Your task to perform on an android device: change alarm snooze length Image 0: 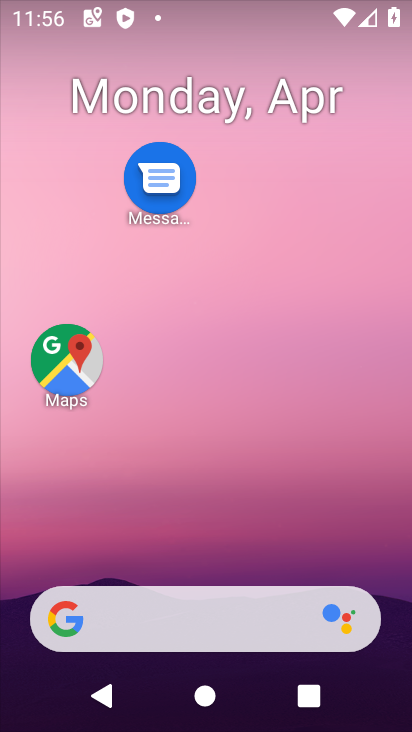
Step 0: drag from (206, 701) to (207, 80)
Your task to perform on an android device: change alarm snooze length Image 1: 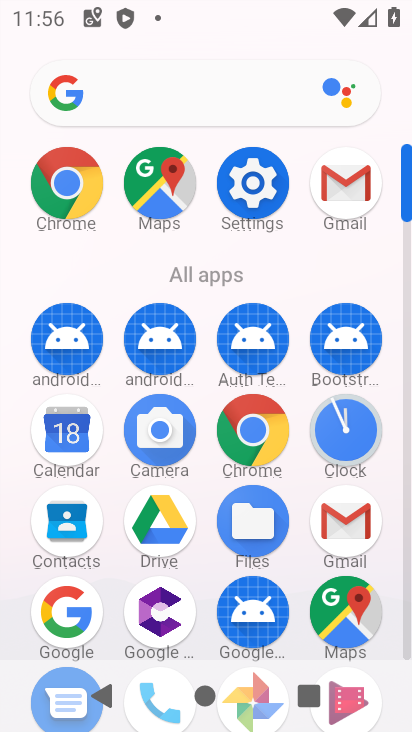
Step 1: click (345, 431)
Your task to perform on an android device: change alarm snooze length Image 2: 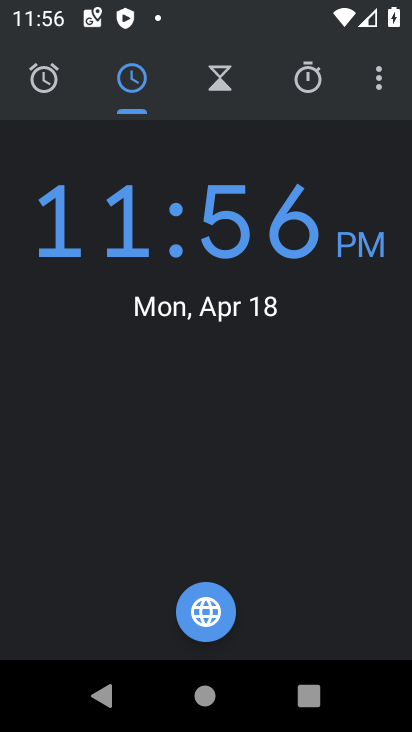
Step 2: click (376, 77)
Your task to perform on an android device: change alarm snooze length Image 3: 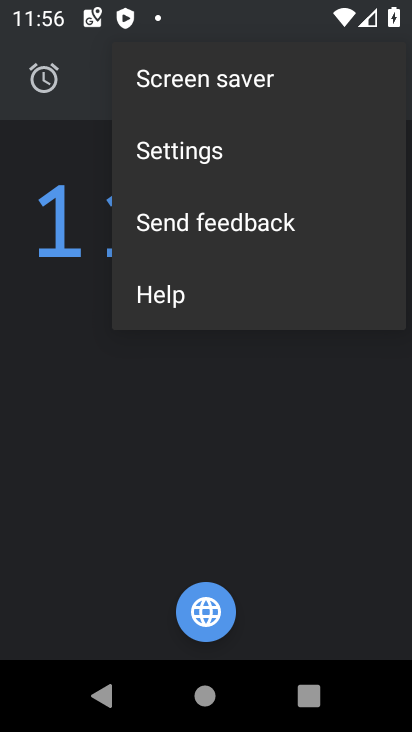
Step 3: click (180, 156)
Your task to perform on an android device: change alarm snooze length Image 4: 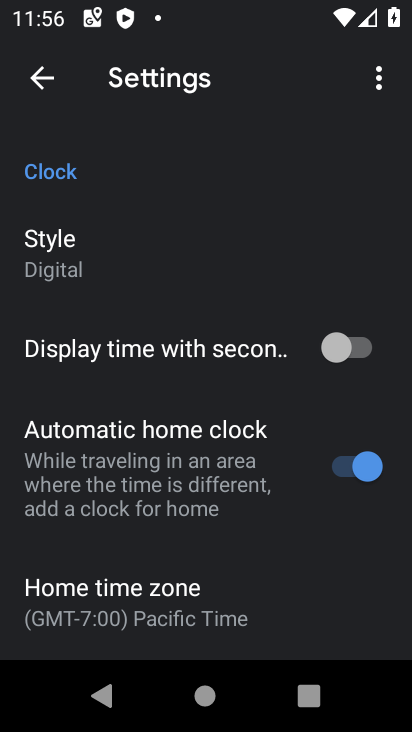
Step 4: drag from (180, 630) to (153, 219)
Your task to perform on an android device: change alarm snooze length Image 5: 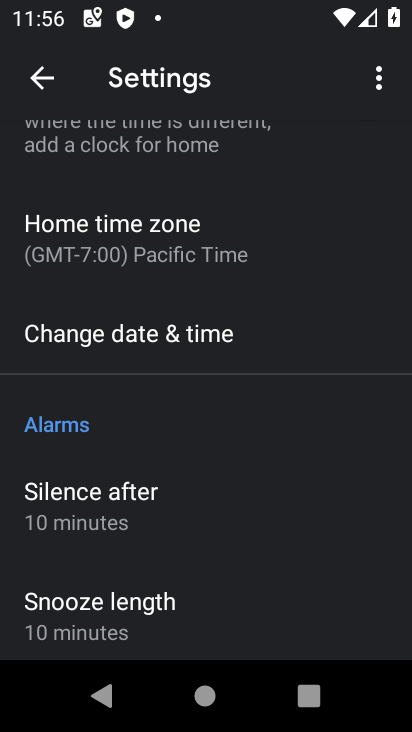
Step 5: click (135, 611)
Your task to perform on an android device: change alarm snooze length Image 6: 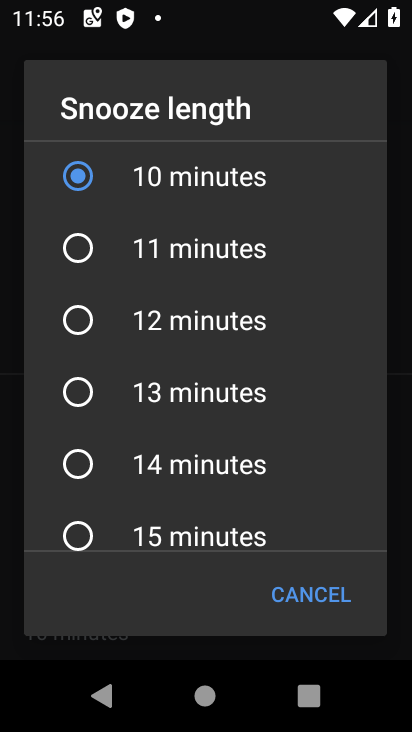
Step 6: click (76, 391)
Your task to perform on an android device: change alarm snooze length Image 7: 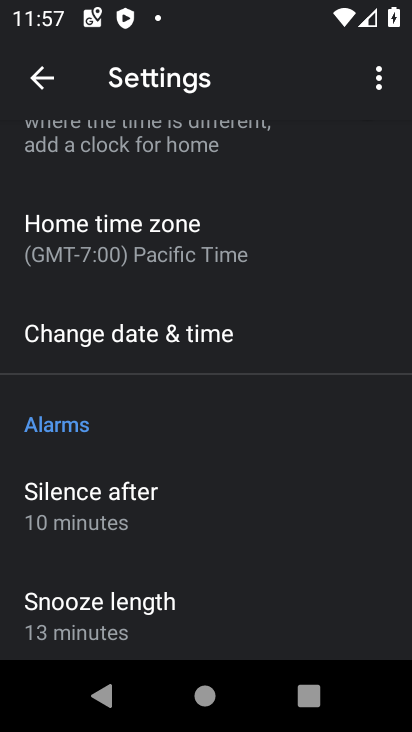
Step 7: task complete